Your task to perform on an android device: toggle priority inbox in the gmail app Image 0: 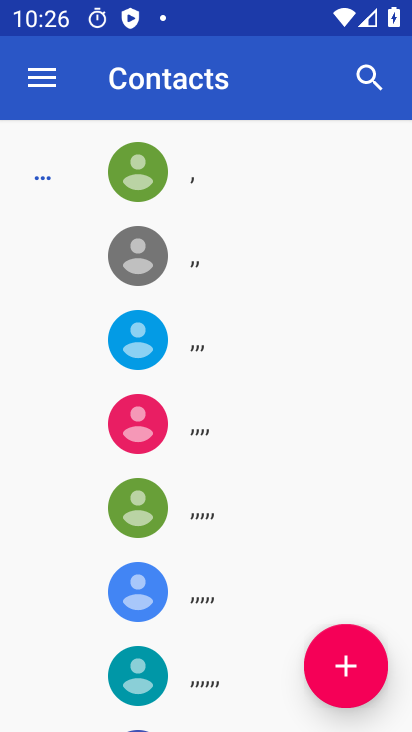
Step 0: press home button
Your task to perform on an android device: toggle priority inbox in the gmail app Image 1: 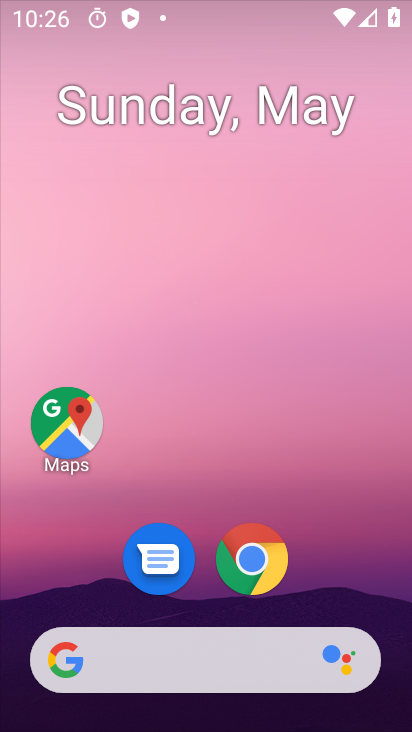
Step 1: drag from (379, 587) to (359, 102)
Your task to perform on an android device: toggle priority inbox in the gmail app Image 2: 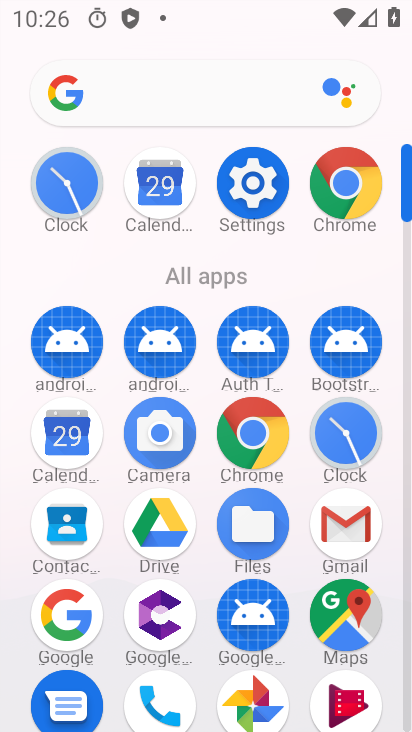
Step 2: click (340, 521)
Your task to perform on an android device: toggle priority inbox in the gmail app Image 3: 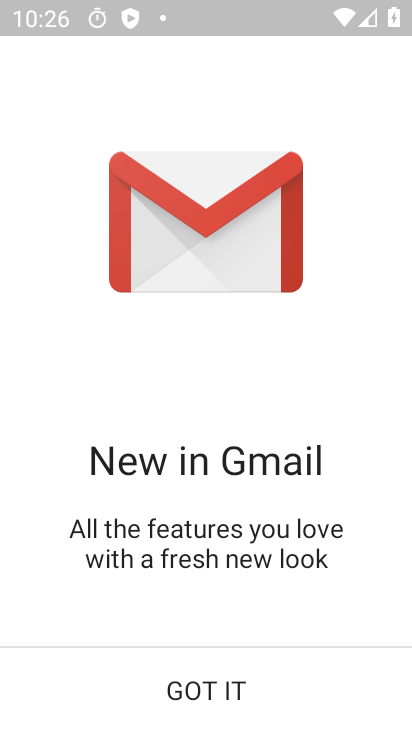
Step 3: click (229, 686)
Your task to perform on an android device: toggle priority inbox in the gmail app Image 4: 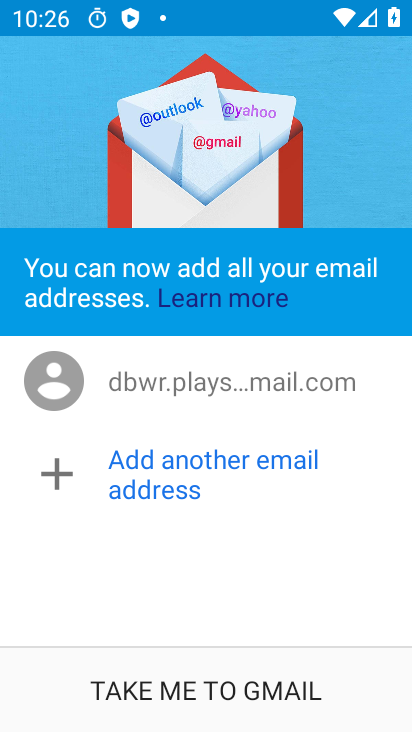
Step 4: click (229, 685)
Your task to perform on an android device: toggle priority inbox in the gmail app Image 5: 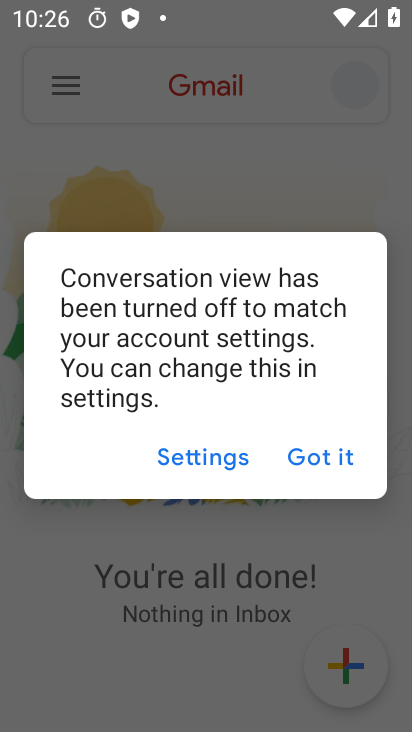
Step 5: click (330, 444)
Your task to perform on an android device: toggle priority inbox in the gmail app Image 6: 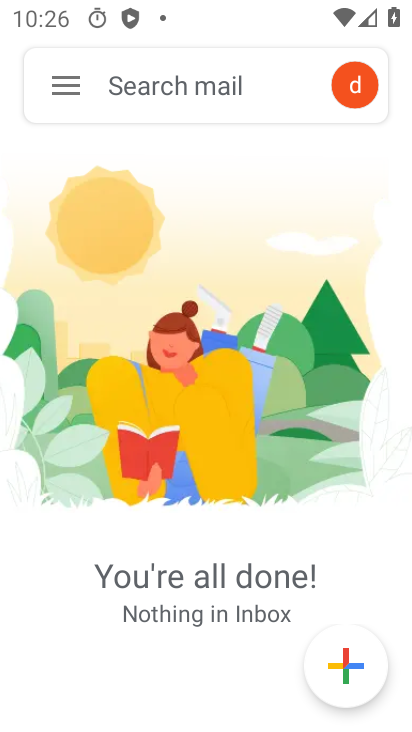
Step 6: click (73, 83)
Your task to perform on an android device: toggle priority inbox in the gmail app Image 7: 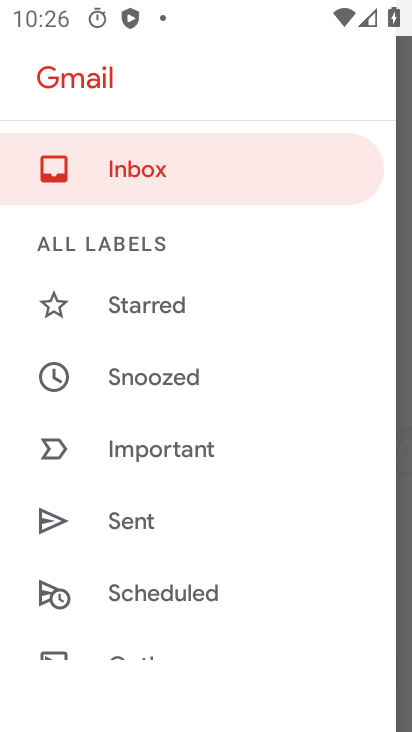
Step 7: drag from (289, 592) to (266, 240)
Your task to perform on an android device: toggle priority inbox in the gmail app Image 8: 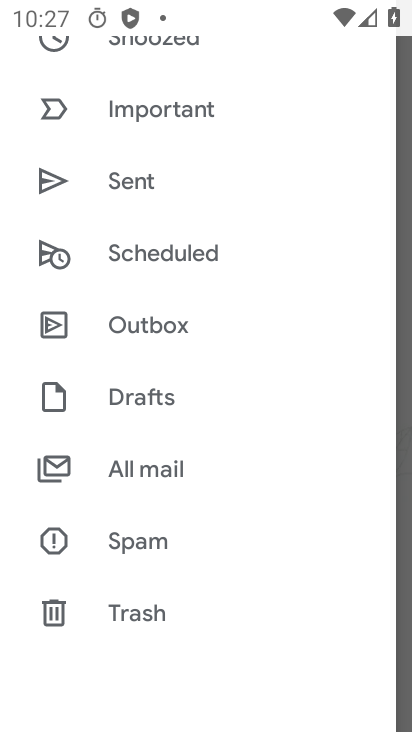
Step 8: drag from (224, 583) to (255, 244)
Your task to perform on an android device: toggle priority inbox in the gmail app Image 9: 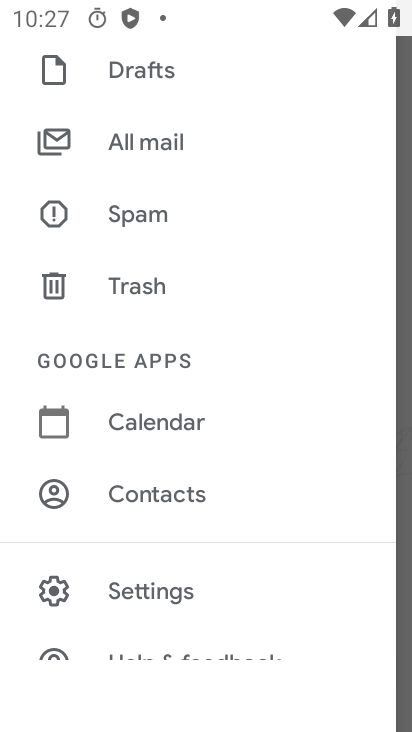
Step 9: click (162, 599)
Your task to perform on an android device: toggle priority inbox in the gmail app Image 10: 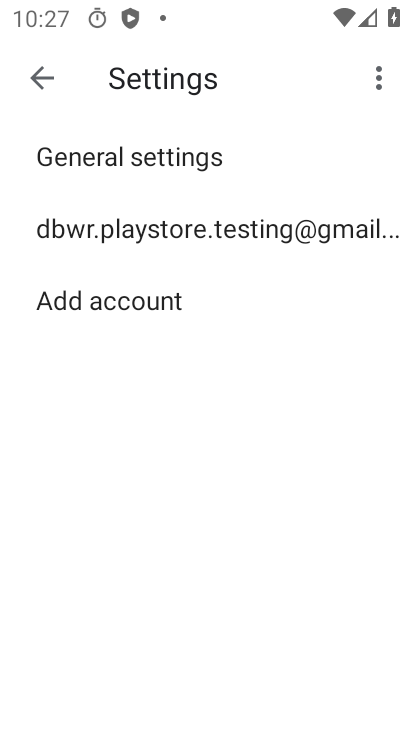
Step 10: click (272, 233)
Your task to perform on an android device: toggle priority inbox in the gmail app Image 11: 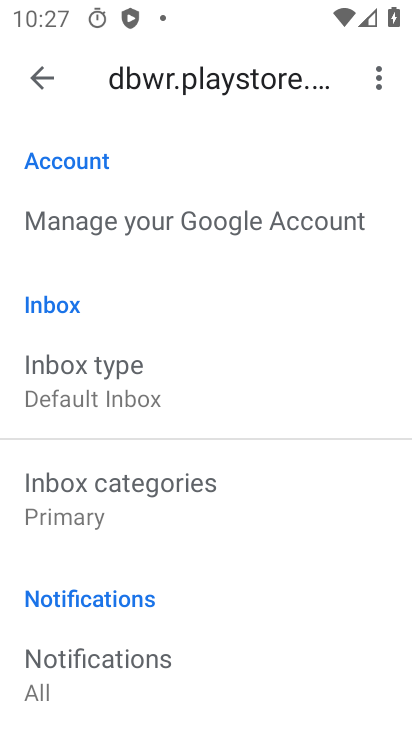
Step 11: click (156, 365)
Your task to perform on an android device: toggle priority inbox in the gmail app Image 12: 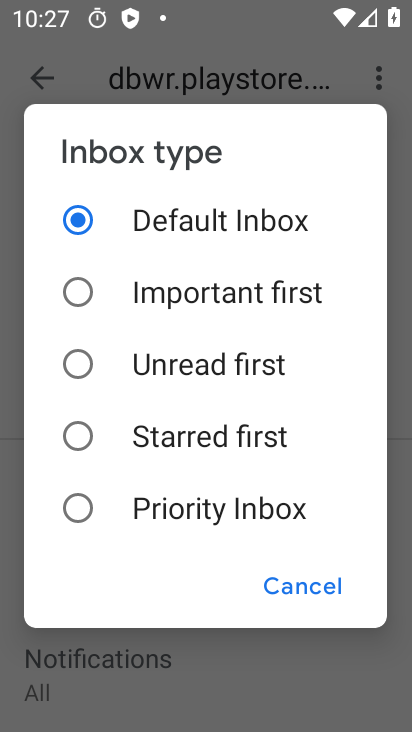
Step 12: click (83, 508)
Your task to perform on an android device: toggle priority inbox in the gmail app Image 13: 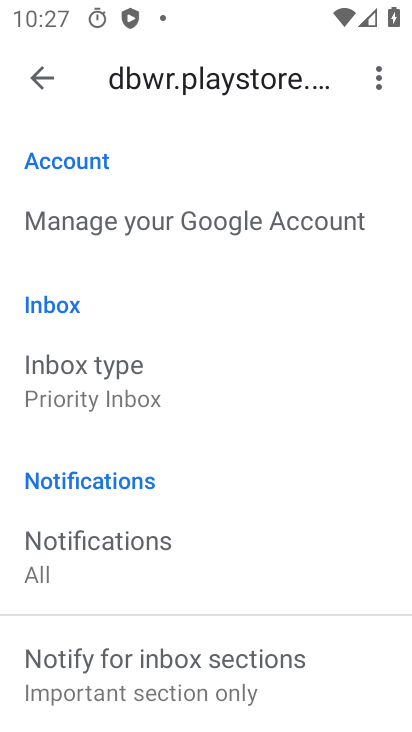
Step 13: task complete